Your task to perform on an android device: Open internet settings Image 0: 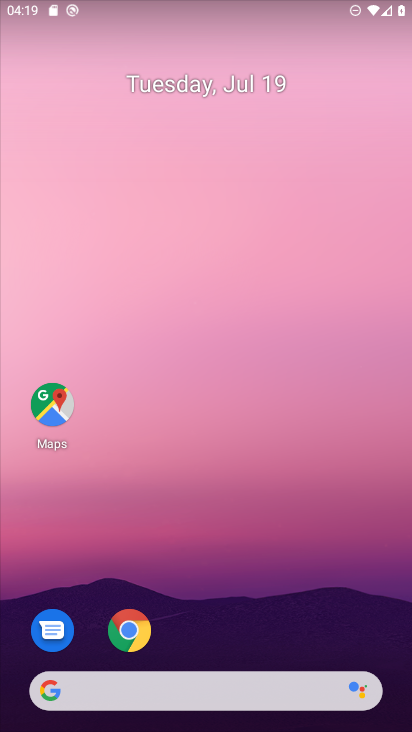
Step 0: drag from (225, 304) to (209, 196)
Your task to perform on an android device: Open internet settings Image 1: 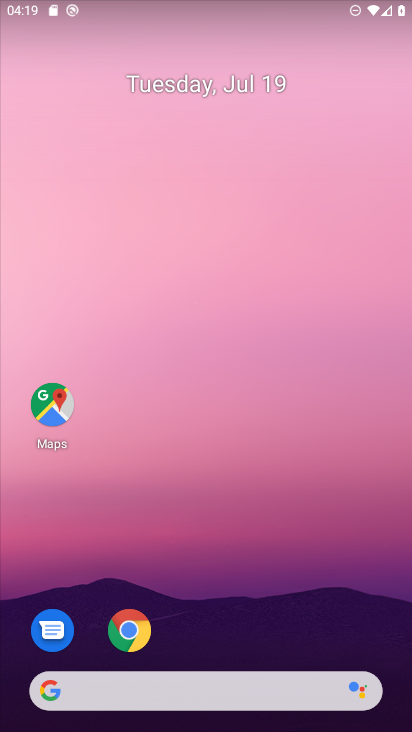
Step 1: drag from (244, 523) to (168, 152)
Your task to perform on an android device: Open internet settings Image 2: 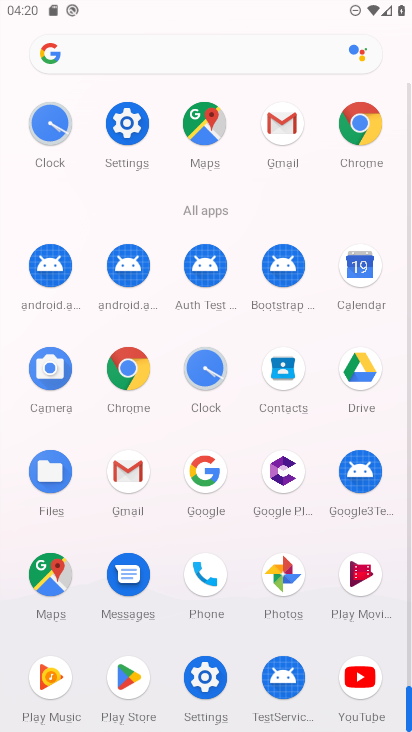
Step 2: click (126, 128)
Your task to perform on an android device: Open internet settings Image 3: 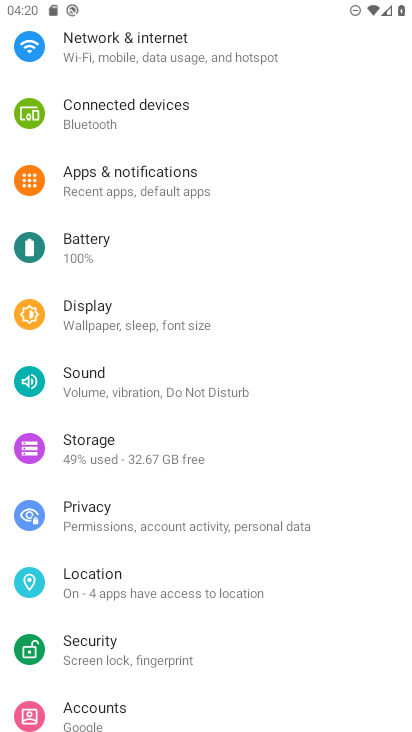
Step 3: drag from (115, 403) to (106, 216)
Your task to perform on an android device: Open internet settings Image 4: 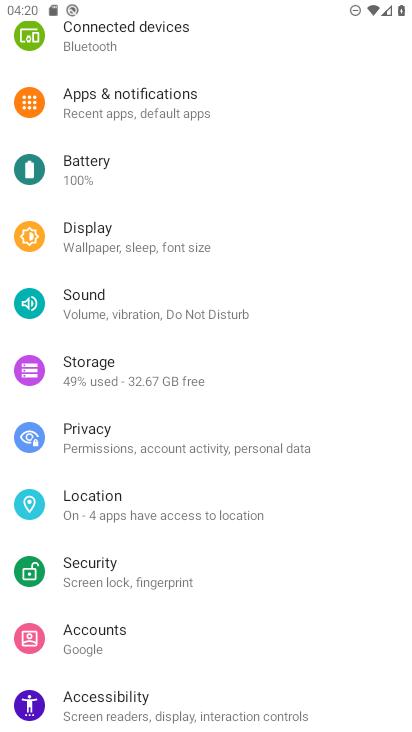
Step 4: drag from (114, 521) to (101, 389)
Your task to perform on an android device: Open internet settings Image 5: 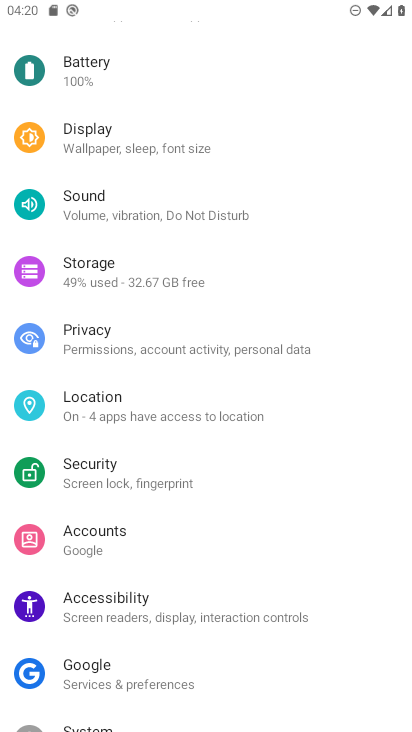
Step 5: drag from (109, 200) to (161, 482)
Your task to perform on an android device: Open internet settings Image 6: 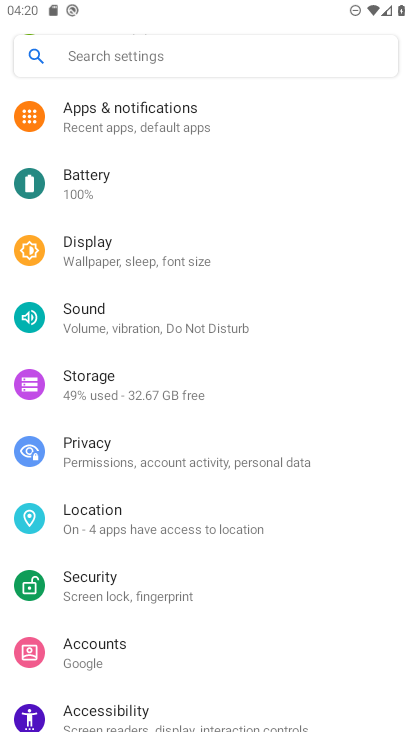
Step 6: drag from (133, 234) to (164, 474)
Your task to perform on an android device: Open internet settings Image 7: 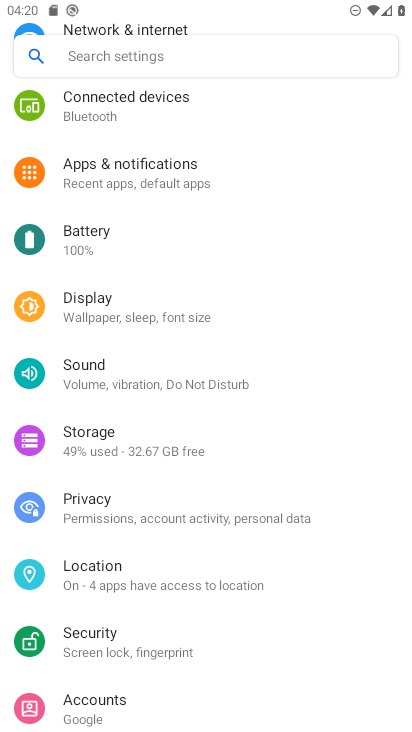
Step 7: drag from (111, 211) to (128, 544)
Your task to perform on an android device: Open internet settings Image 8: 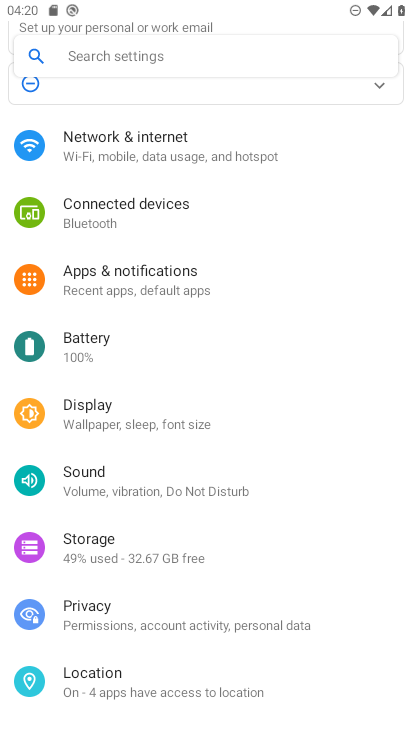
Step 8: click (138, 159)
Your task to perform on an android device: Open internet settings Image 9: 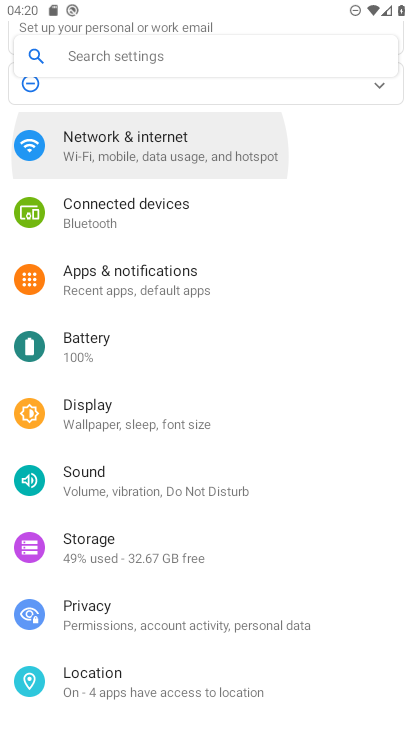
Step 9: click (137, 156)
Your task to perform on an android device: Open internet settings Image 10: 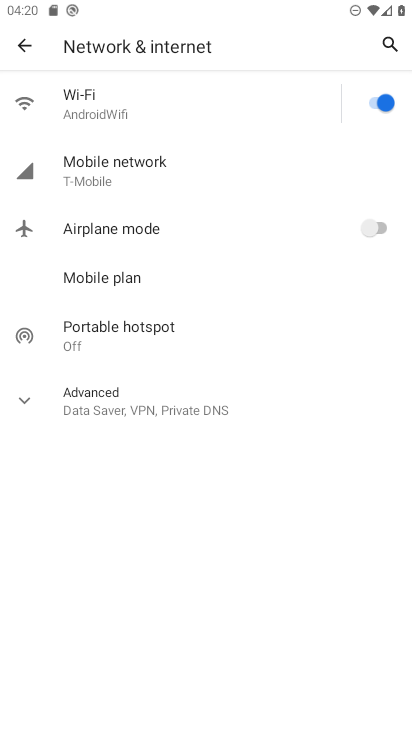
Step 10: task complete